Your task to perform on an android device: turn notification dots on Image 0: 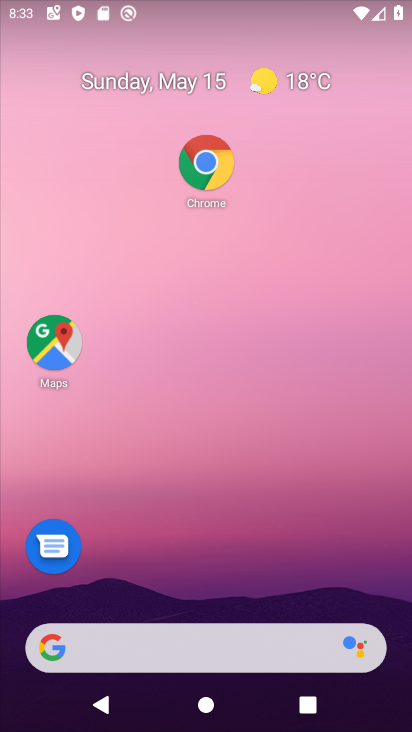
Step 0: drag from (336, 584) to (347, 215)
Your task to perform on an android device: turn notification dots on Image 1: 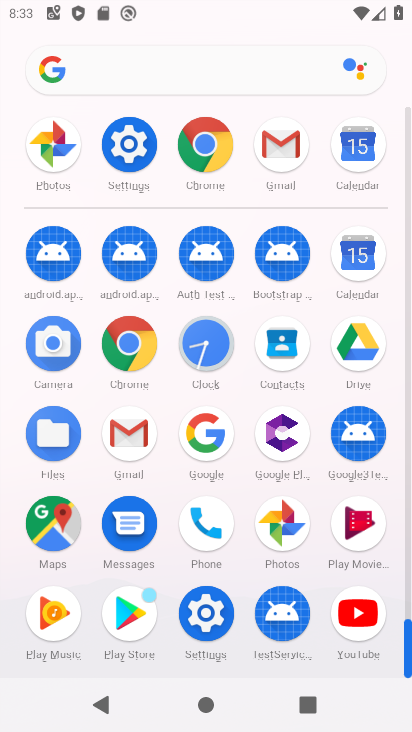
Step 1: click (136, 145)
Your task to perform on an android device: turn notification dots on Image 2: 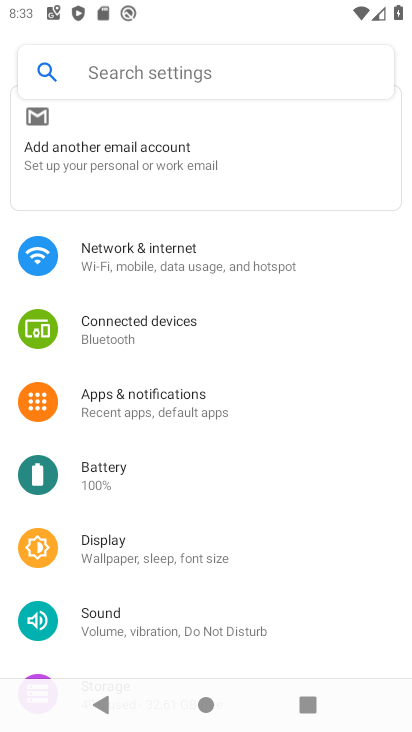
Step 2: click (238, 66)
Your task to perform on an android device: turn notification dots on Image 3: 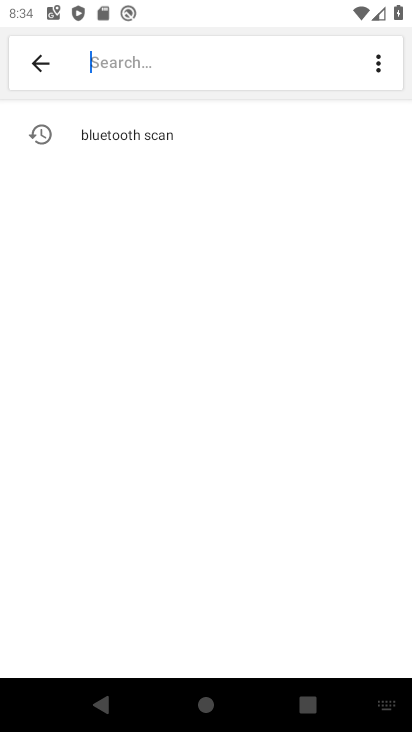
Step 3: click (181, 48)
Your task to perform on an android device: turn notification dots on Image 4: 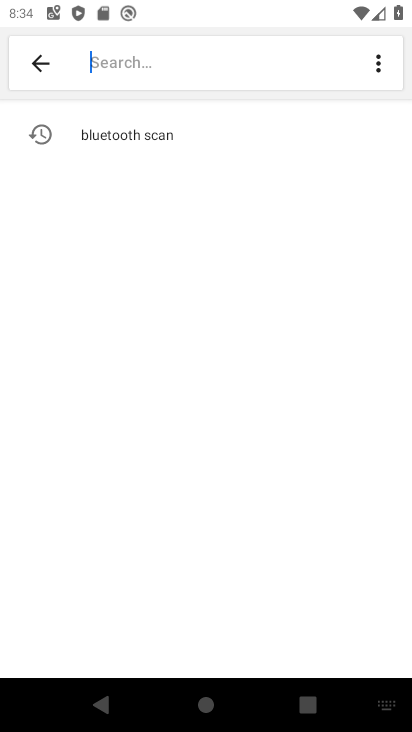
Step 4: type "notification dots"
Your task to perform on an android device: turn notification dots on Image 5: 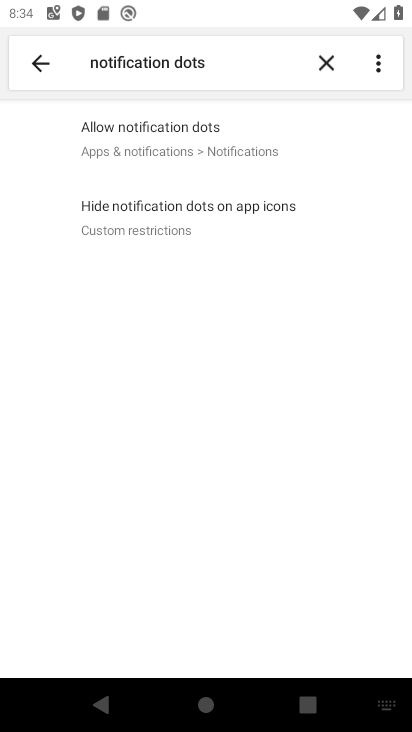
Step 5: click (192, 125)
Your task to perform on an android device: turn notification dots on Image 6: 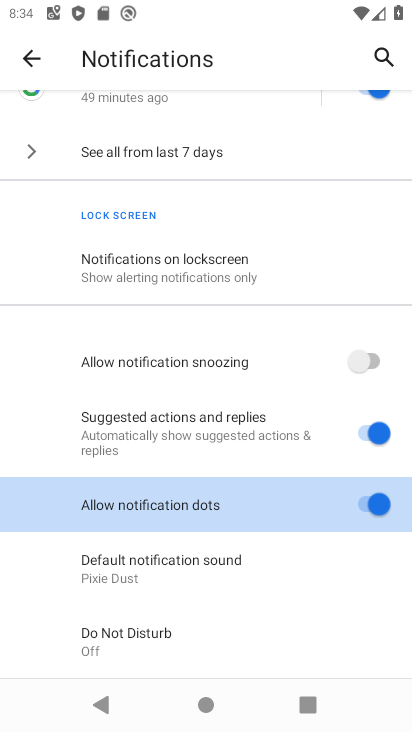
Step 6: task complete